Your task to perform on an android device: Open the map Image 0: 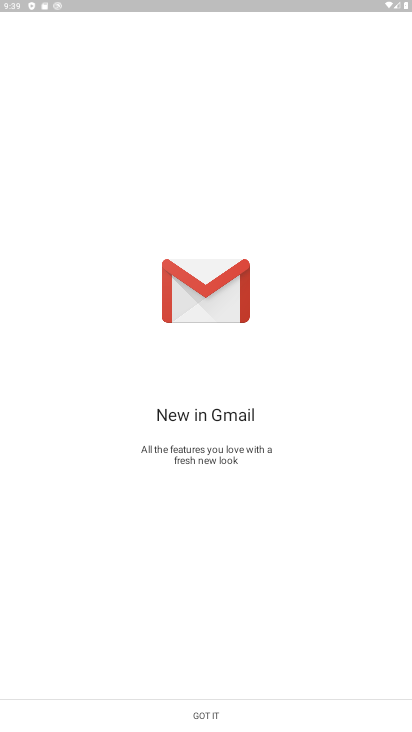
Step 0: press home button
Your task to perform on an android device: Open the map Image 1: 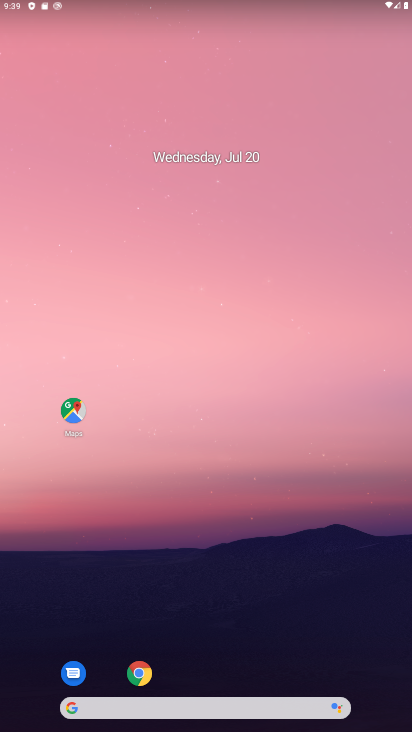
Step 1: click (71, 399)
Your task to perform on an android device: Open the map Image 2: 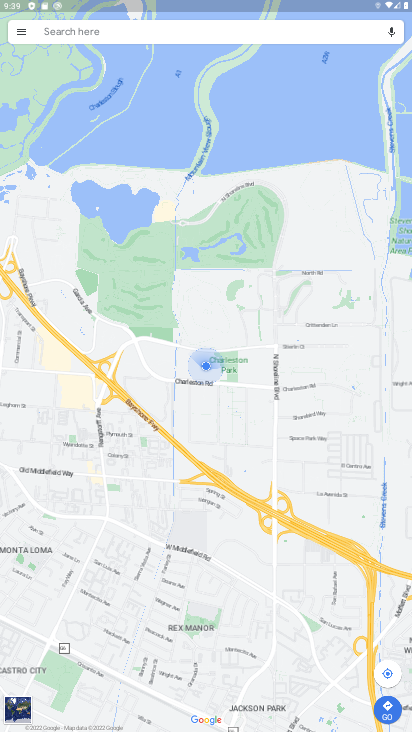
Step 2: task complete